Your task to perform on an android device: check battery use Image 0: 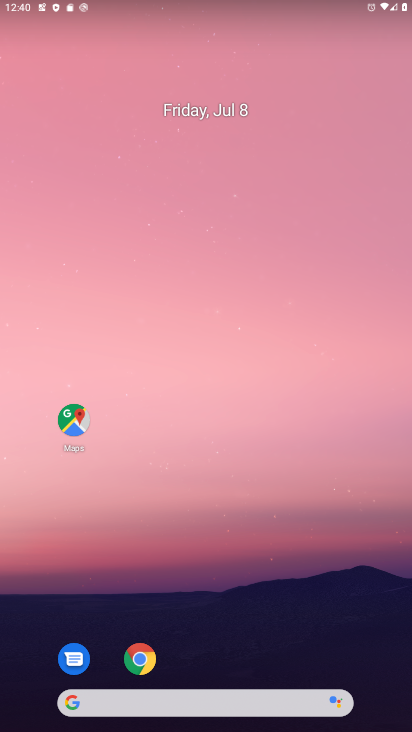
Step 0: drag from (189, 610) to (175, 108)
Your task to perform on an android device: check battery use Image 1: 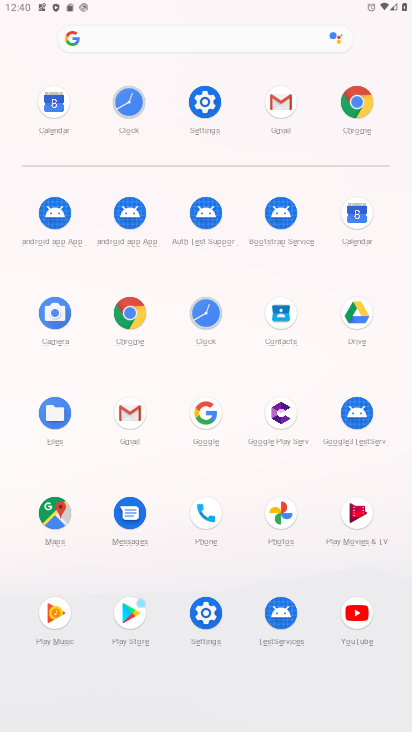
Step 1: click (199, 102)
Your task to perform on an android device: check battery use Image 2: 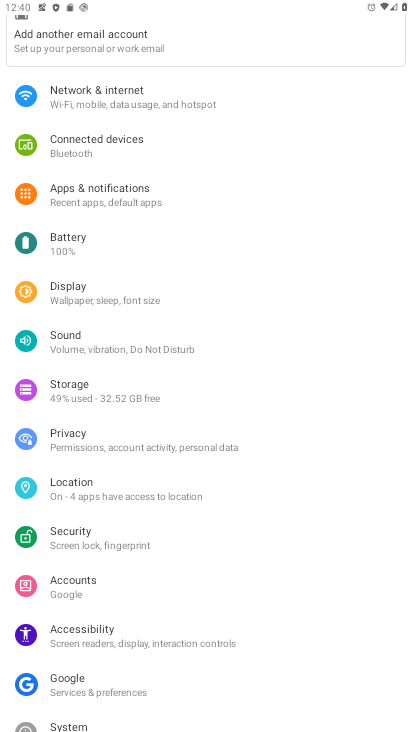
Step 2: click (67, 242)
Your task to perform on an android device: check battery use Image 3: 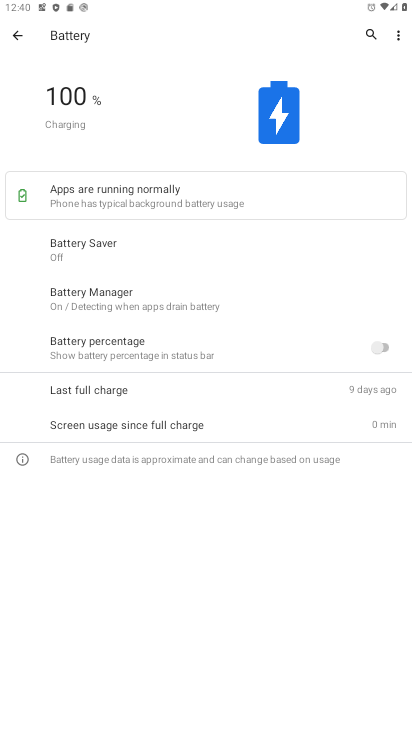
Step 3: task complete